Your task to perform on an android device: Open Youtube and go to the subscriptions tab Image 0: 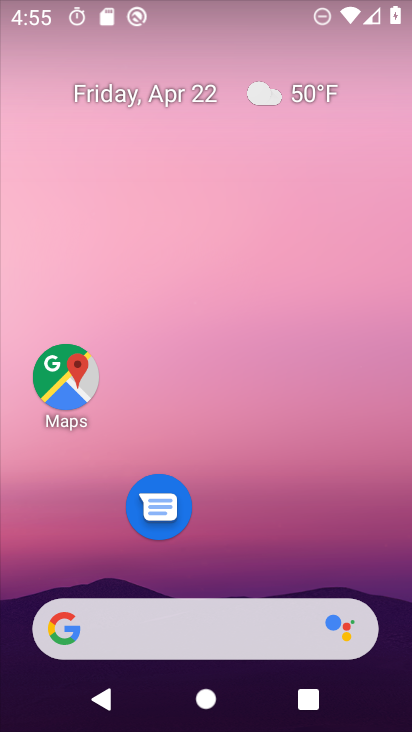
Step 0: drag from (219, 518) to (305, 72)
Your task to perform on an android device: Open Youtube and go to the subscriptions tab Image 1: 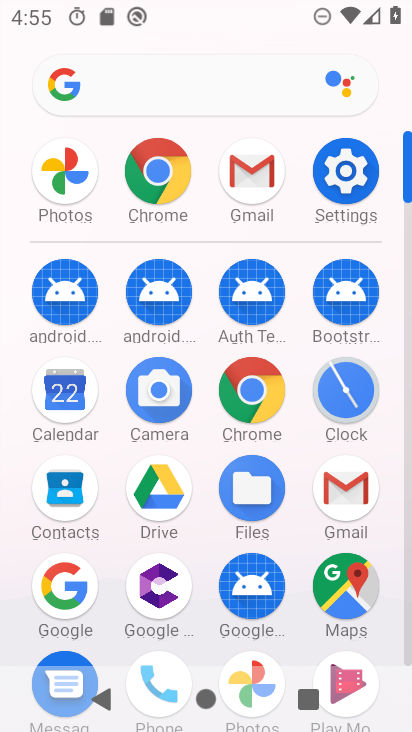
Step 1: drag from (182, 512) to (229, 98)
Your task to perform on an android device: Open Youtube and go to the subscriptions tab Image 2: 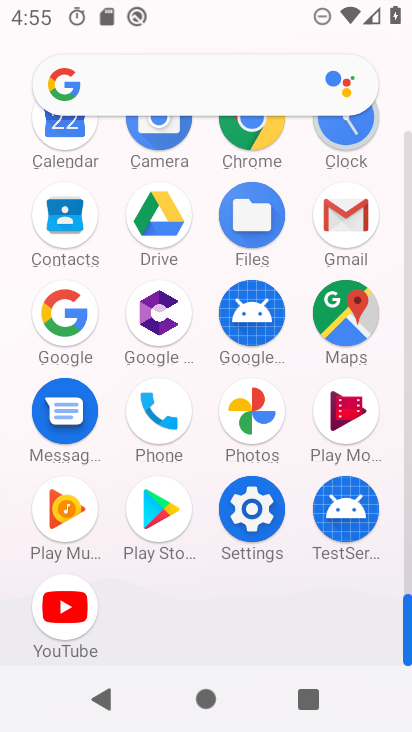
Step 2: click (52, 617)
Your task to perform on an android device: Open Youtube and go to the subscriptions tab Image 3: 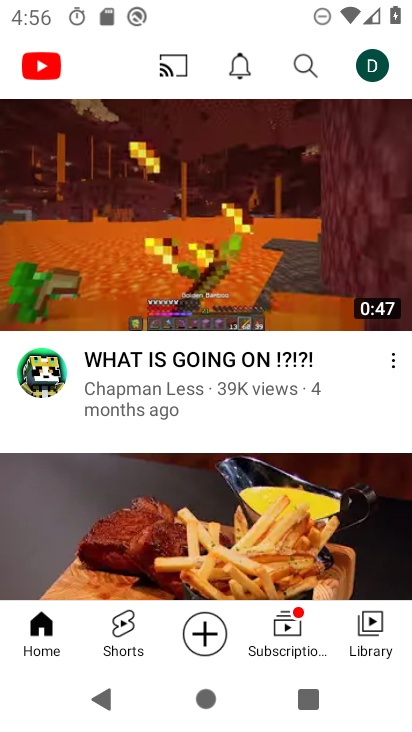
Step 3: click (306, 630)
Your task to perform on an android device: Open Youtube and go to the subscriptions tab Image 4: 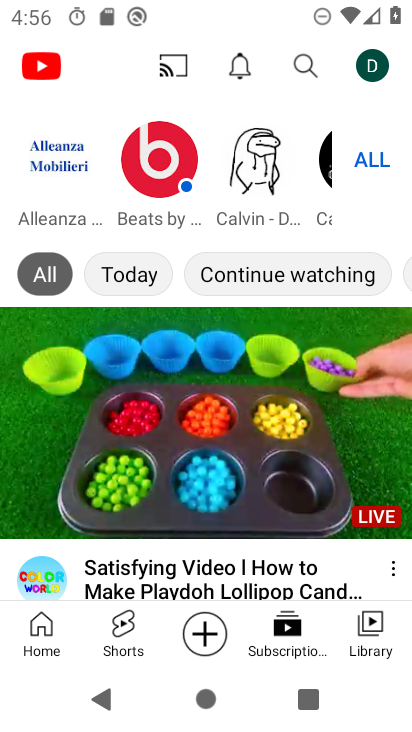
Step 4: task complete